Your task to perform on an android device: open app "Firefox Browser" (install if not already installed) Image 0: 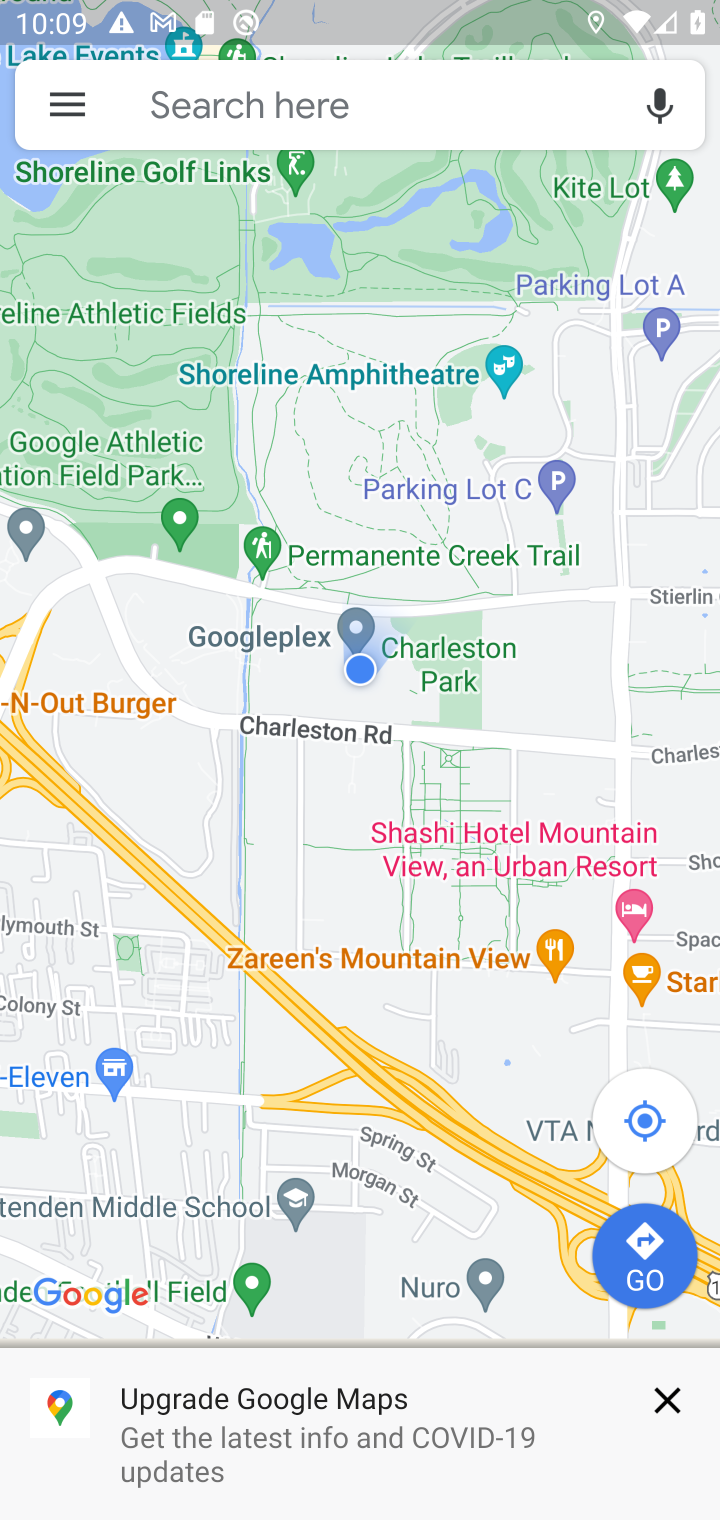
Step 0: press home button
Your task to perform on an android device: open app "Firefox Browser" (install if not already installed) Image 1: 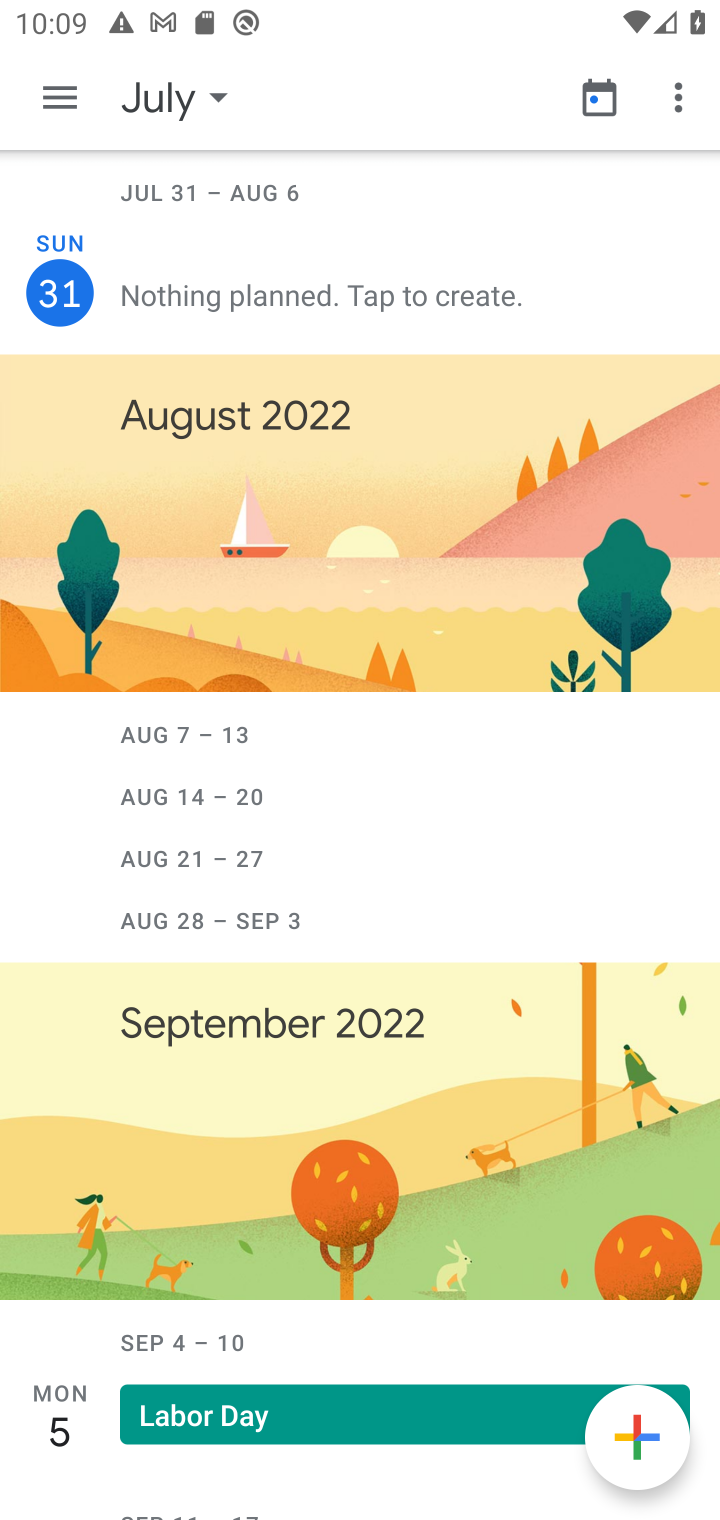
Step 1: press home button
Your task to perform on an android device: open app "Firefox Browser" (install if not already installed) Image 2: 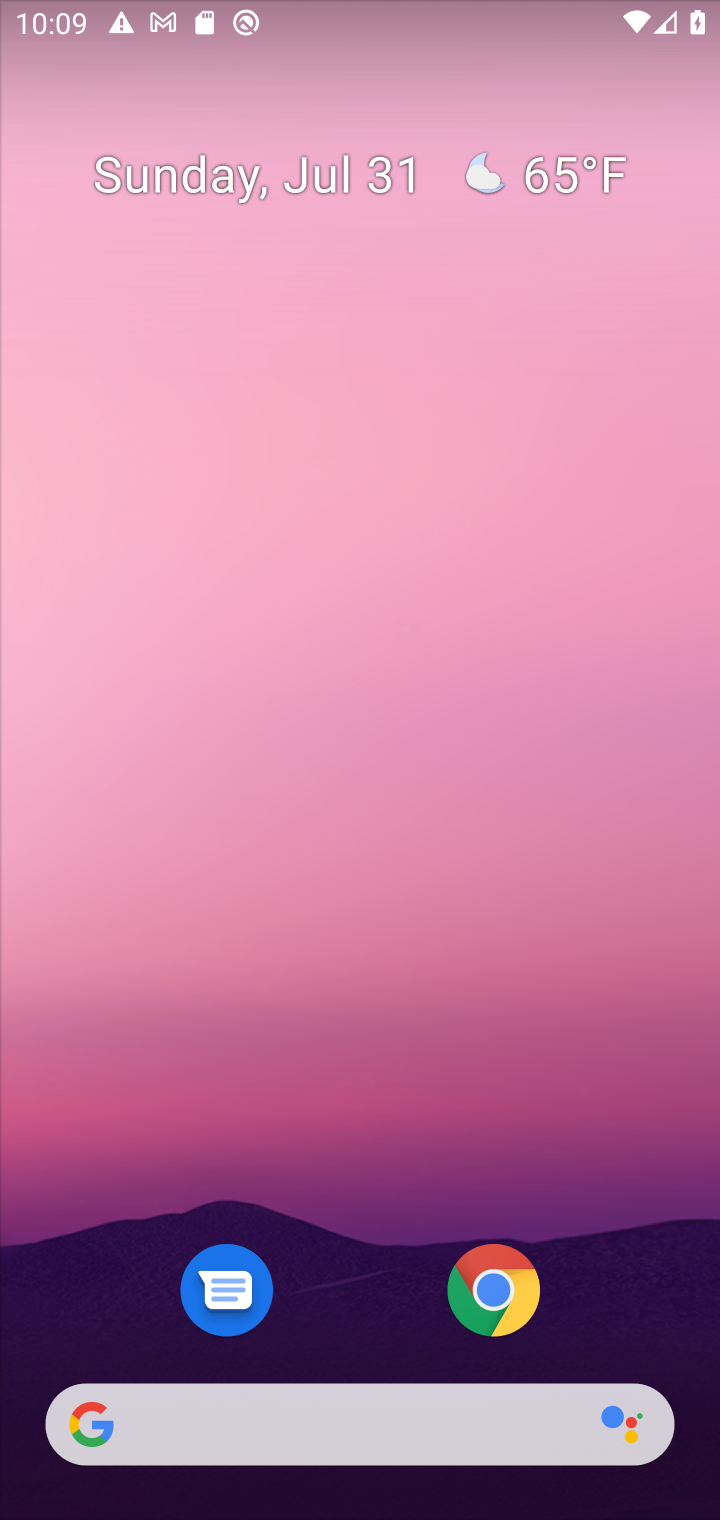
Step 2: drag from (630, 1242) to (671, 152)
Your task to perform on an android device: open app "Firefox Browser" (install if not already installed) Image 3: 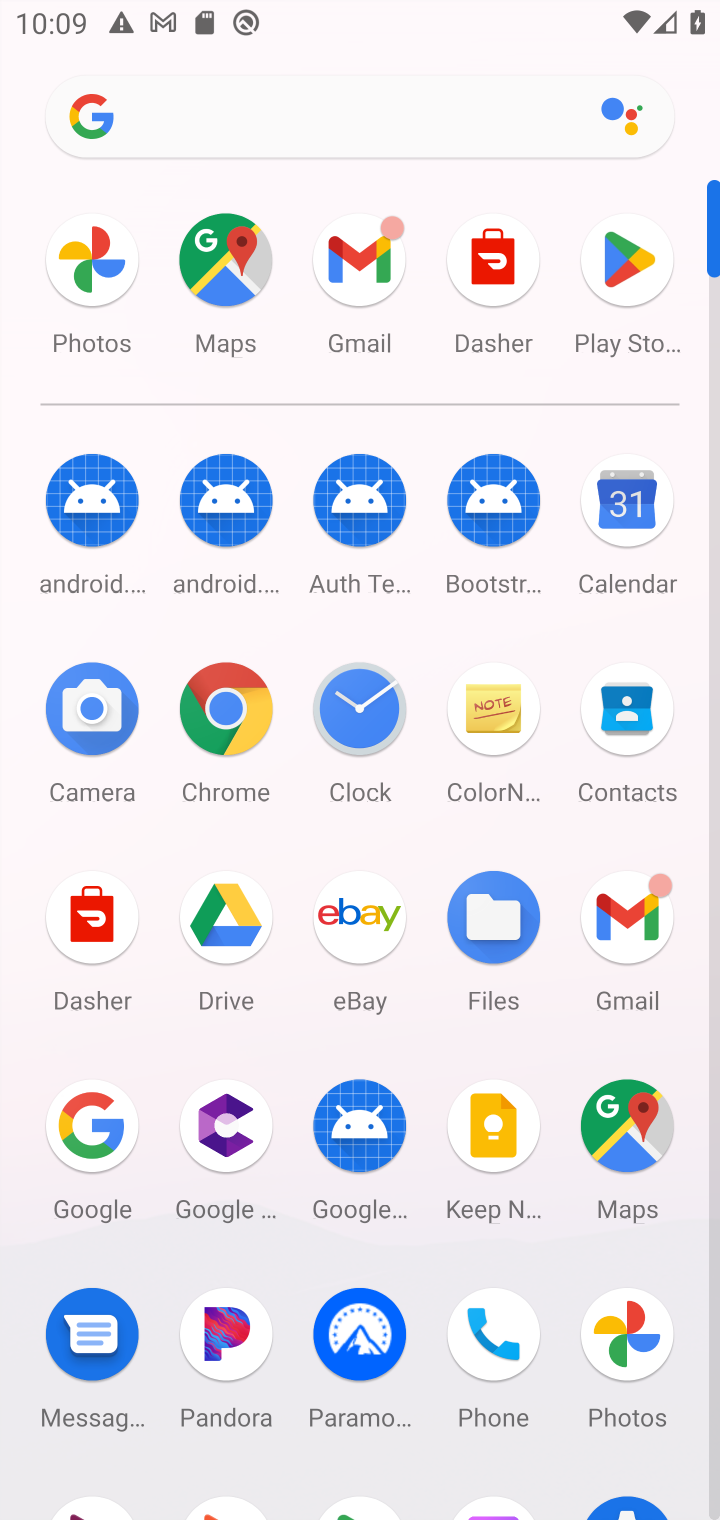
Step 3: click (626, 270)
Your task to perform on an android device: open app "Firefox Browser" (install if not already installed) Image 4: 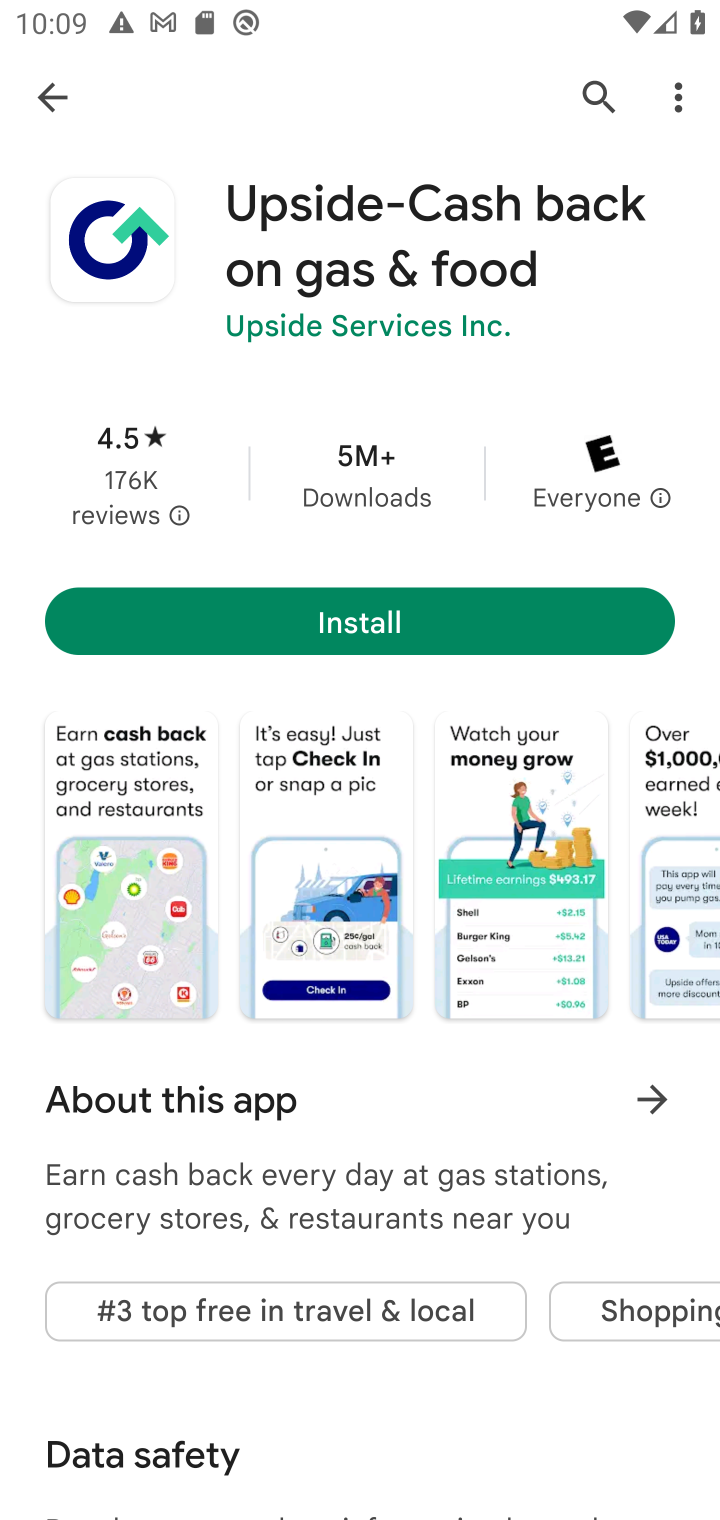
Step 4: click (599, 96)
Your task to perform on an android device: open app "Firefox Browser" (install if not already installed) Image 5: 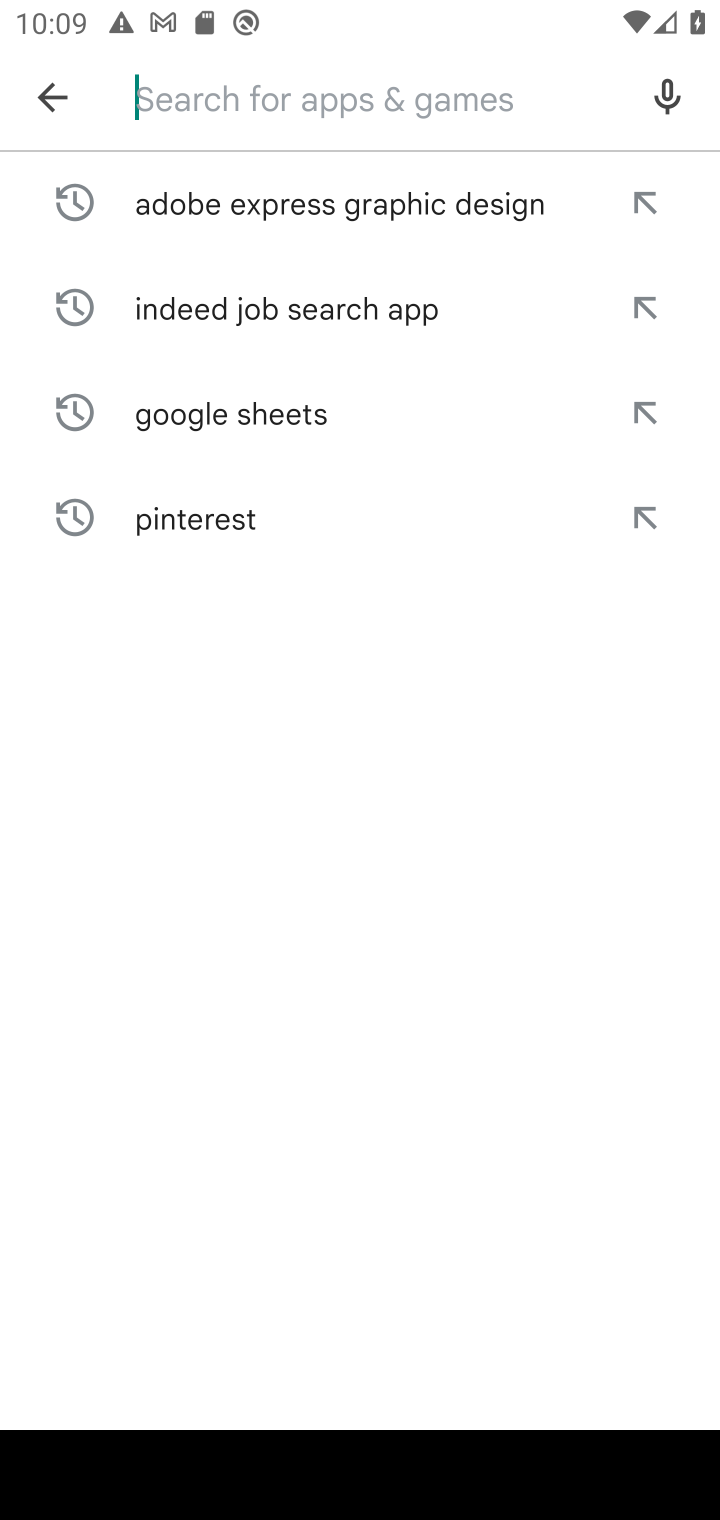
Step 5: type "firefox browser "
Your task to perform on an android device: open app "Firefox Browser" (install if not already installed) Image 6: 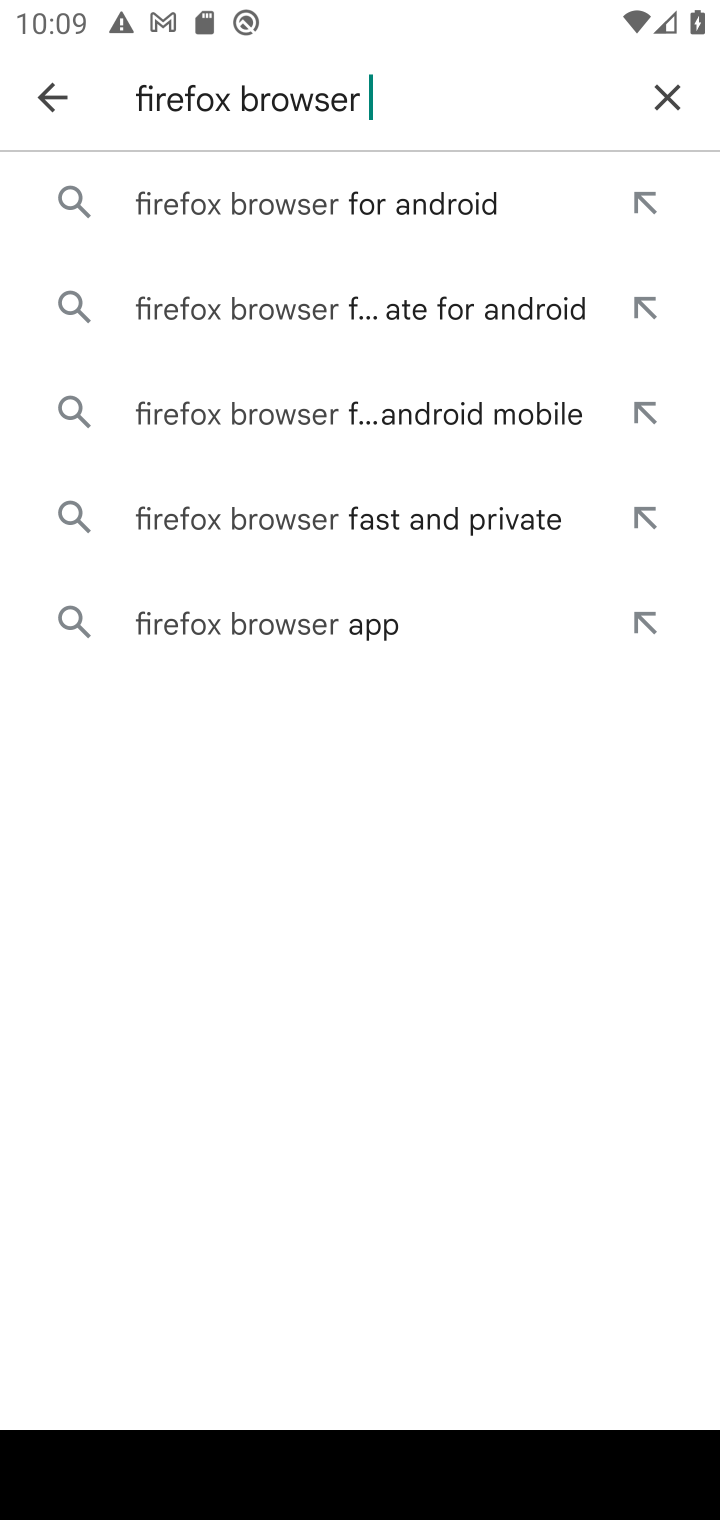
Step 6: click (364, 204)
Your task to perform on an android device: open app "Firefox Browser" (install if not already installed) Image 7: 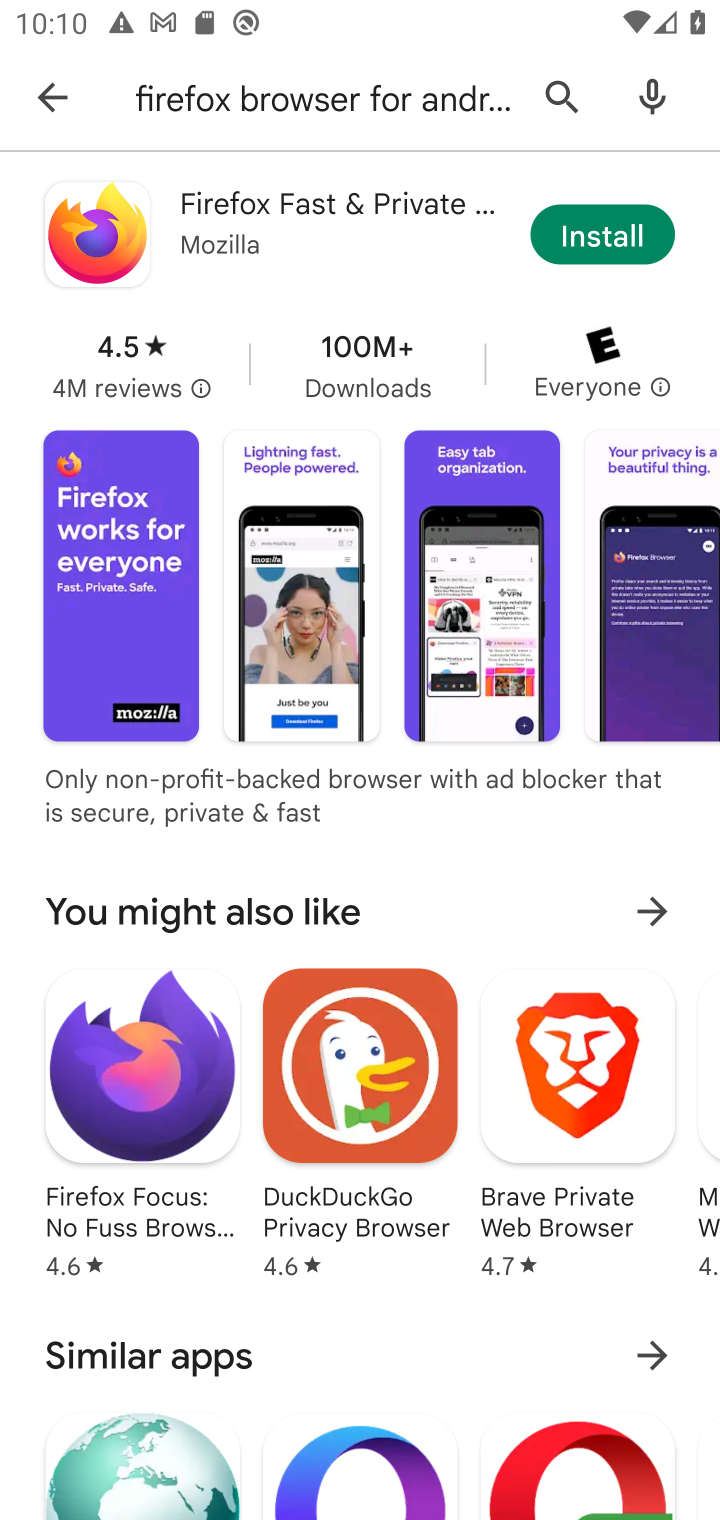
Step 7: click (591, 252)
Your task to perform on an android device: open app "Firefox Browser" (install if not already installed) Image 8: 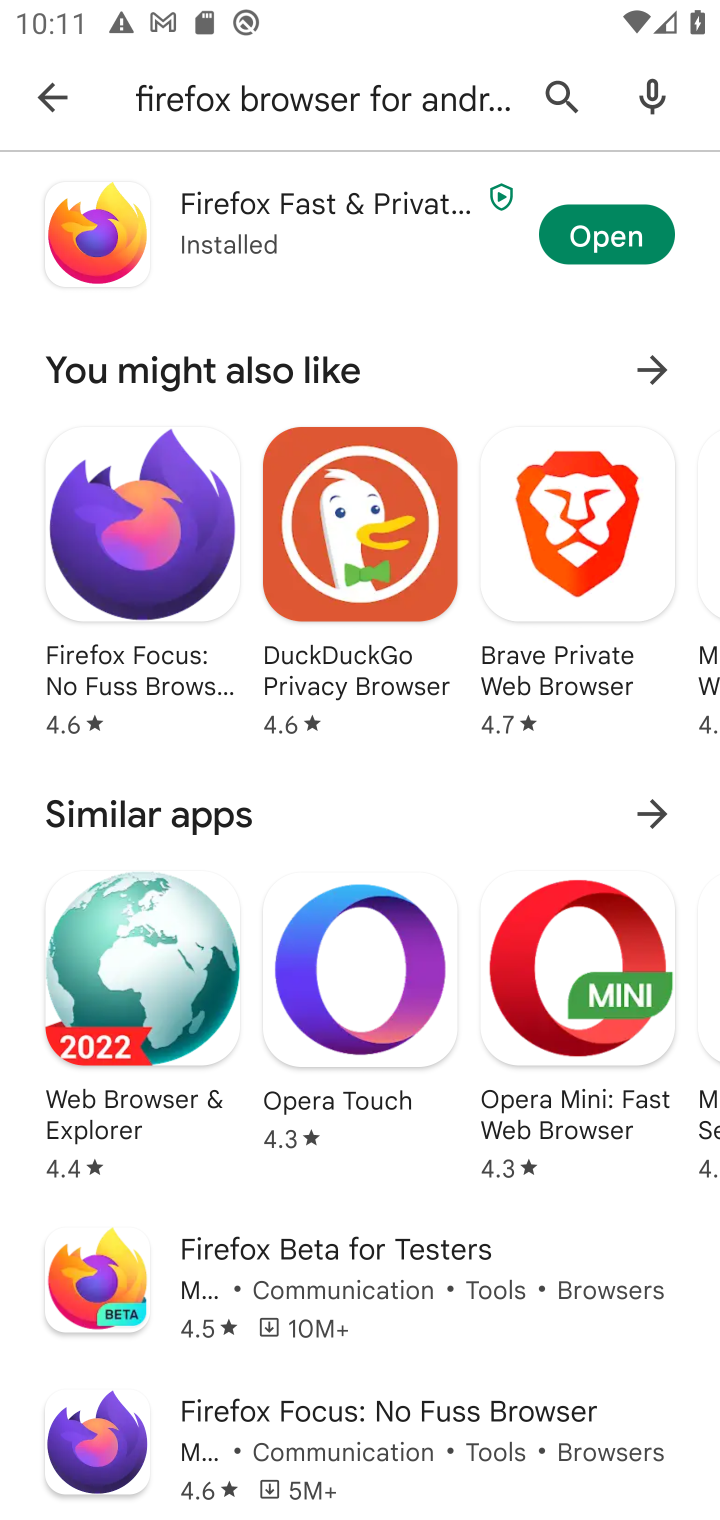
Step 8: click (569, 234)
Your task to perform on an android device: open app "Firefox Browser" (install if not already installed) Image 9: 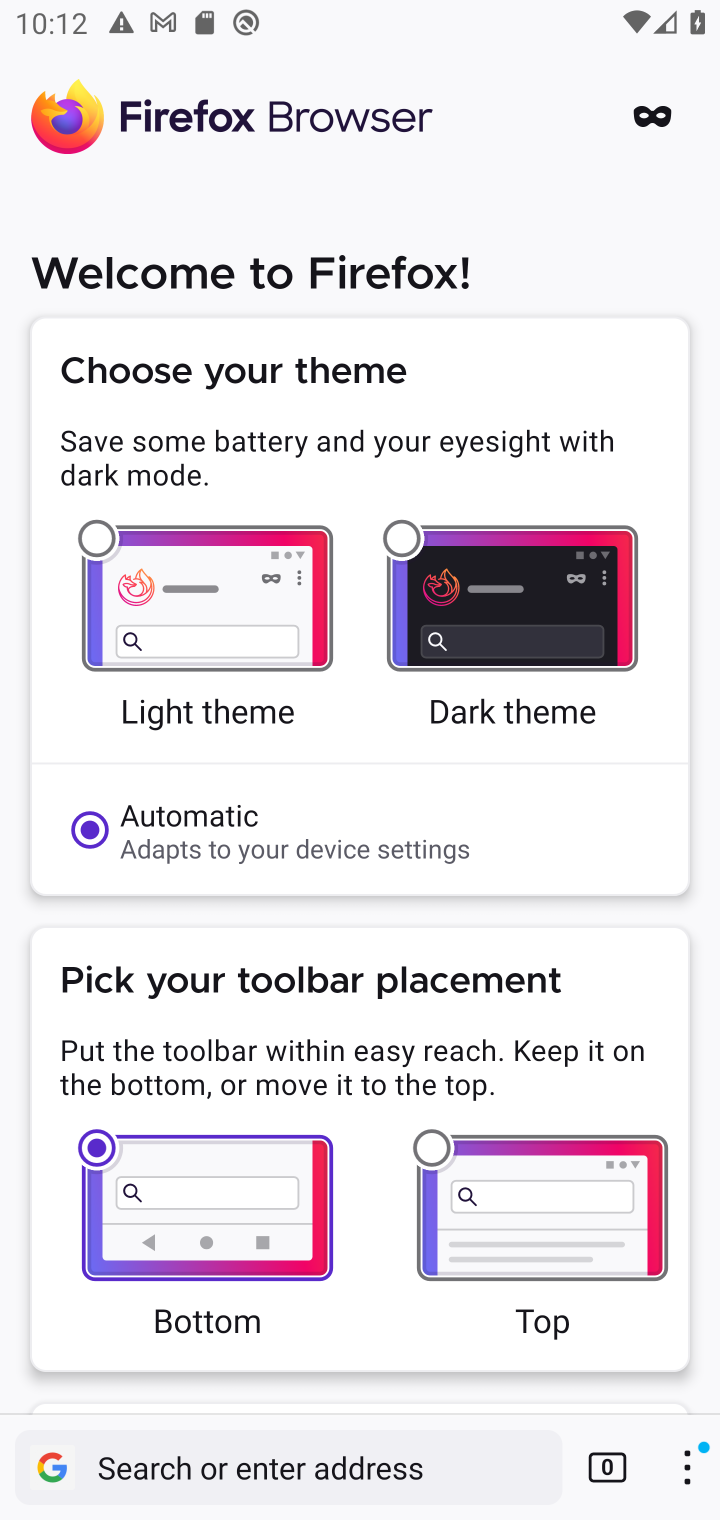
Step 9: task complete